Your task to perform on an android device: open app "Grab" Image 0: 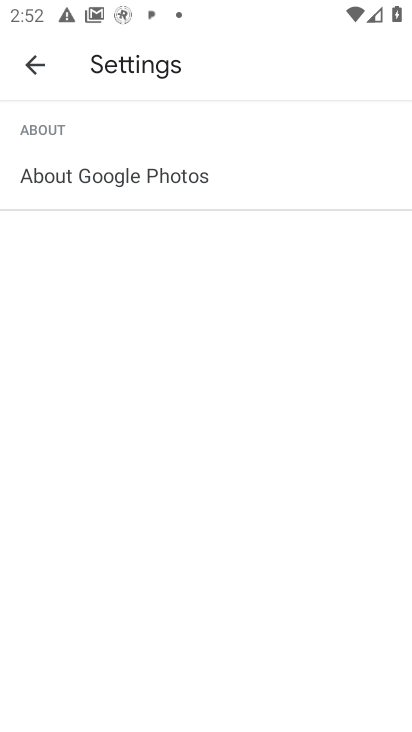
Step 0: press home button
Your task to perform on an android device: open app "Grab" Image 1: 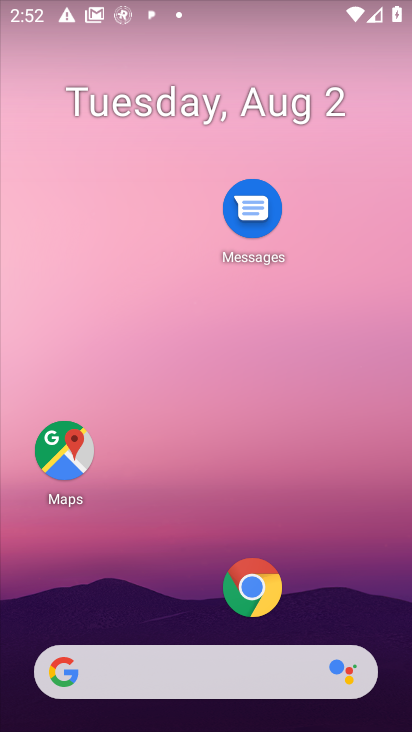
Step 1: drag from (170, 611) to (186, 154)
Your task to perform on an android device: open app "Grab" Image 2: 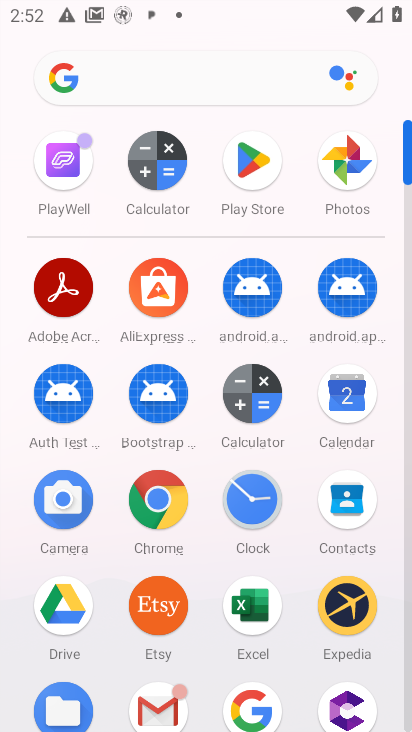
Step 2: click (247, 163)
Your task to perform on an android device: open app "Grab" Image 3: 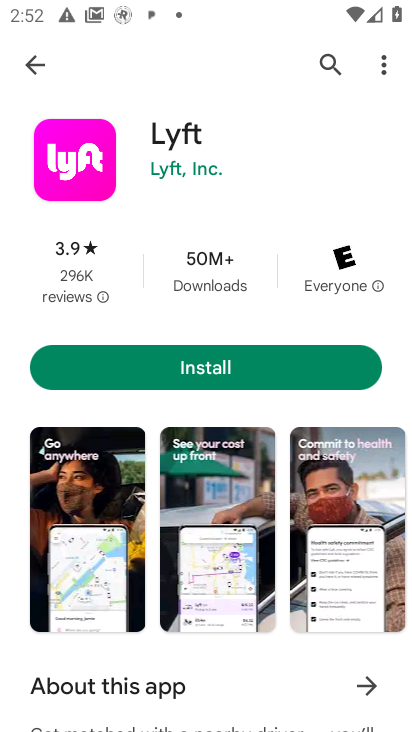
Step 3: click (327, 70)
Your task to perform on an android device: open app "Grab" Image 4: 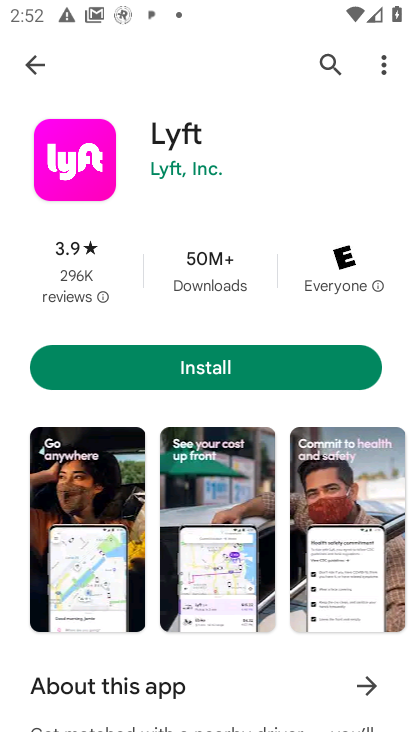
Step 4: click (328, 57)
Your task to perform on an android device: open app "Grab" Image 5: 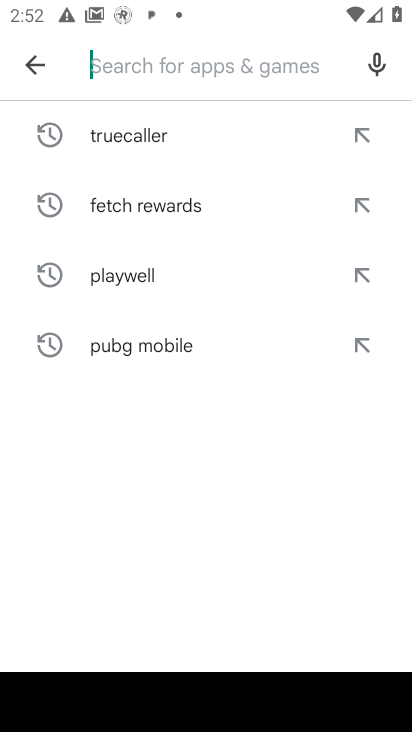
Step 5: type "Grab"
Your task to perform on an android device: open app "Grab" Image 6: 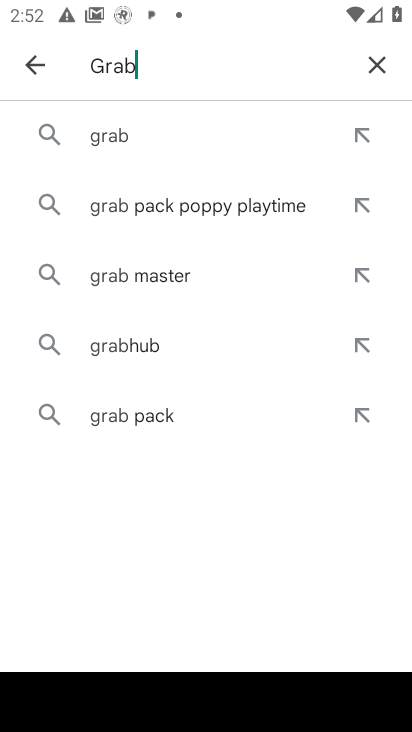
Step 6: type ""
Your task to perform on an android device: open app "Grab" Image 7: 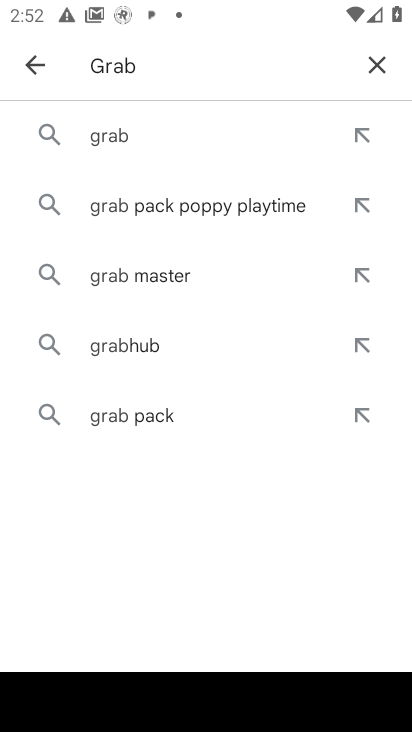
Step 7: click (146, 142)
Your task to perform on an android device: open app "Grab" Image 8: 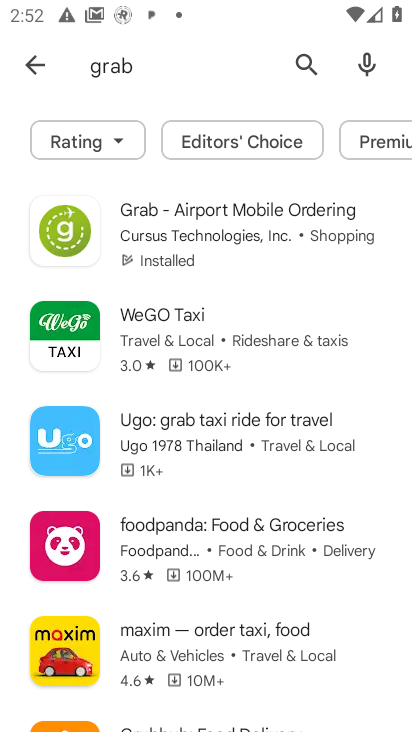
Step 8: click (220, 213)
Your task to perform on an android device: open app "Grab" Image 9: 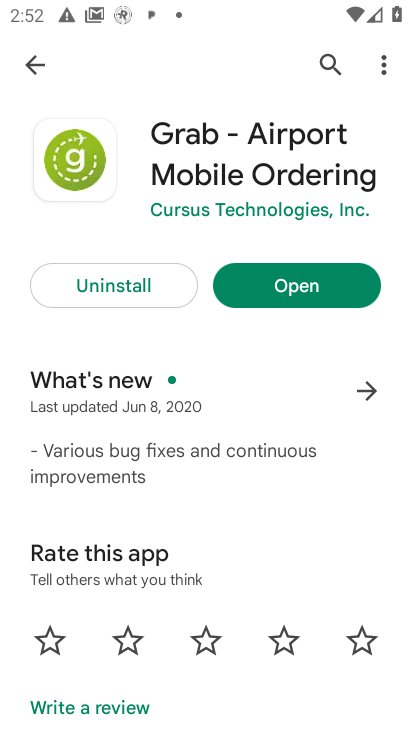
Step 9: click (268, 292)
Your task to perform on an android device: open app "Grab" Image 10: 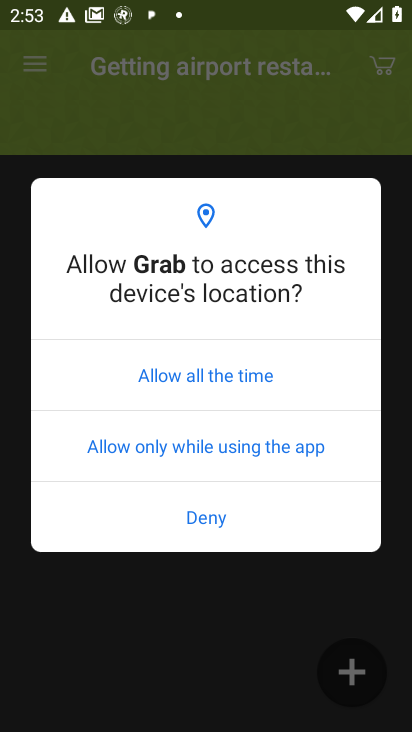
Step 10: task complete